Your task to perform on an android device: Go to ESPN.com Image 0: 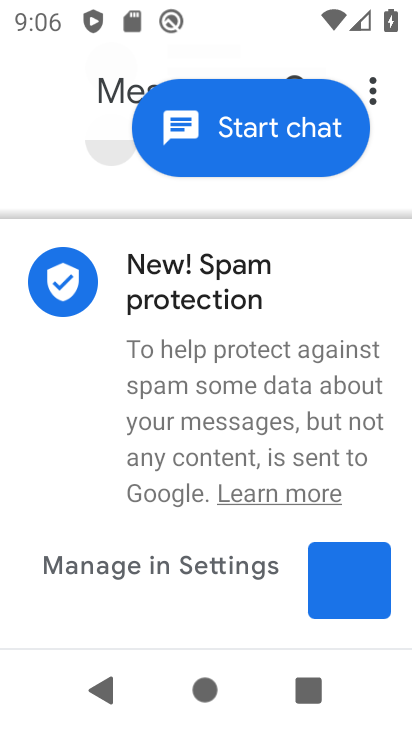
Step 0: press home button
Your task to perform on an android device: Go to ESPN.com Image 1: 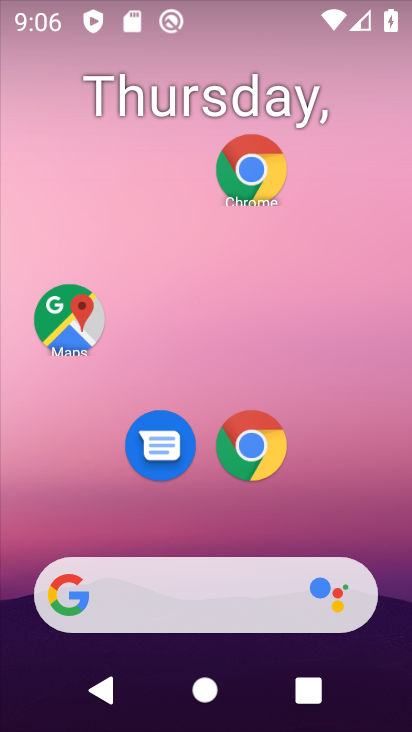
Step 1: click (258, 462)
Your task to perform on an android device: Go to ESPN.com Image 2: 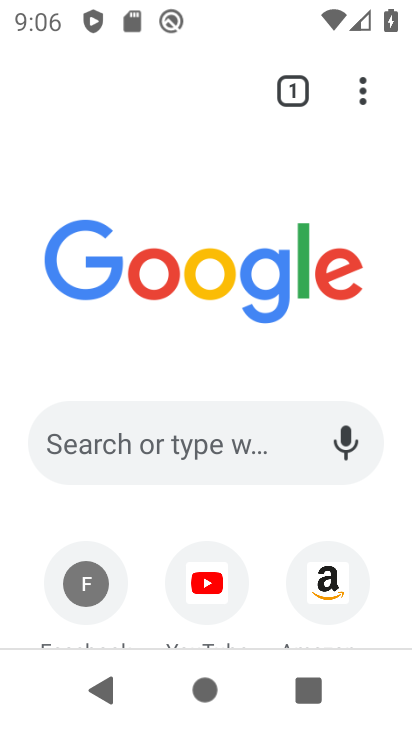
Step 2: drag from (260, 521) to (252, 234)
Your task to perform on an android device: Go to ESPN.com Image 3: 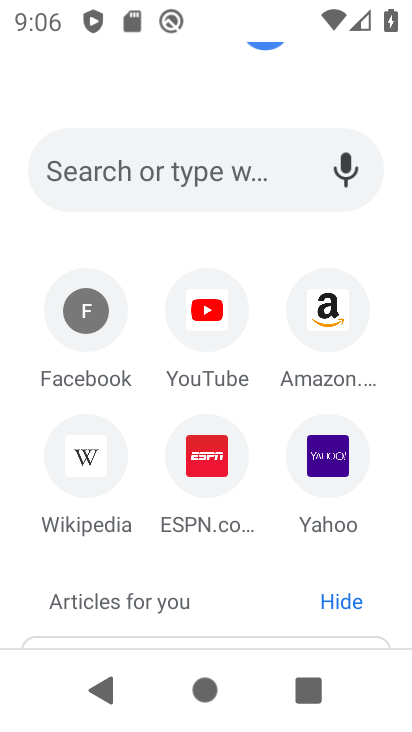
Step 3: click (221, 431)
Your task to perform on an android device: Go to ESPN.com Image 4: 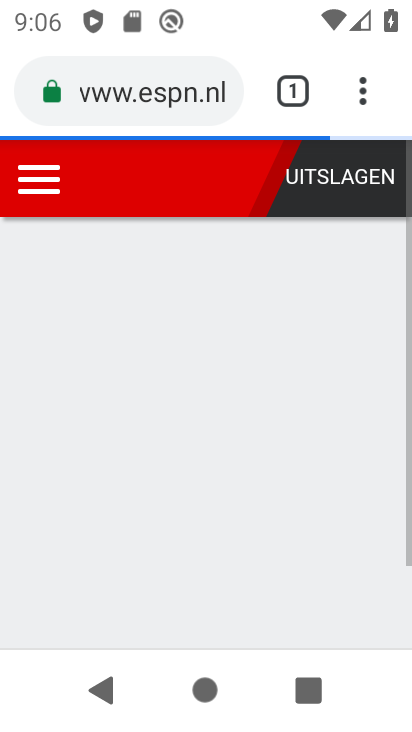
Step 4: task complete